Your task to perform on an android device: turn on airplane mode Image 0: 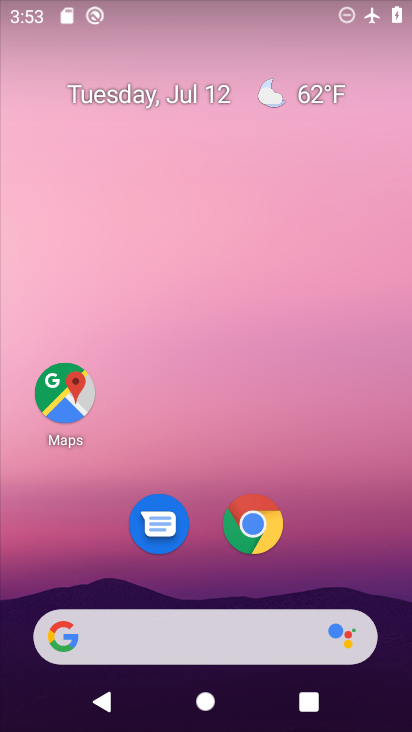
Step 0: drag from (326, 398) to (352, 19)
Your task to perform on an android device: turn on airplane mode Image 1: 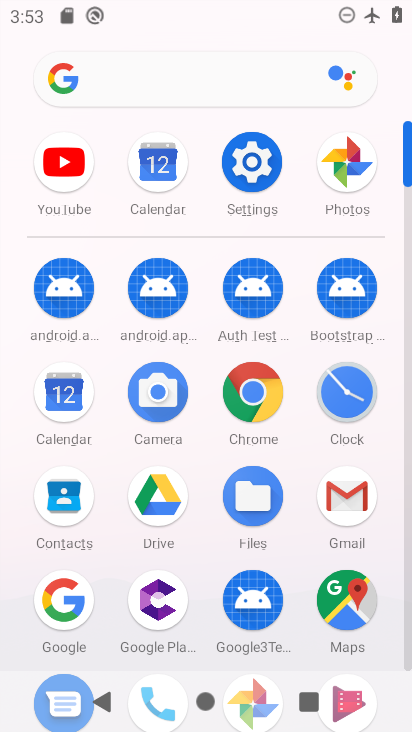
Step 1: click (268, 171)
Your task to perform on an android device: turn on airplane mode Image 2: 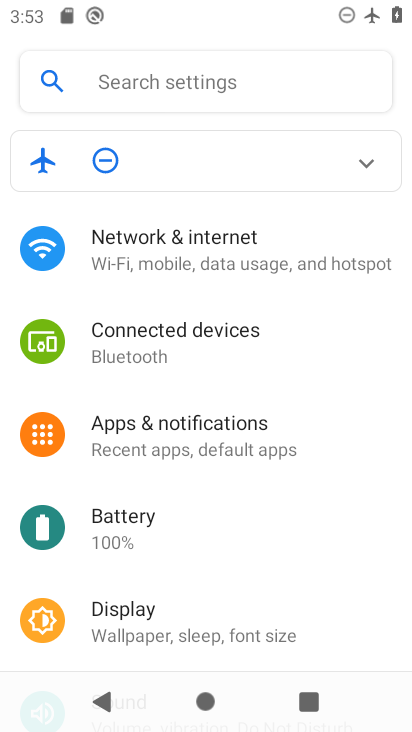
Step 2: click (234, 224)
Your task to perform on an android device: turn on airplane mode Image 3: 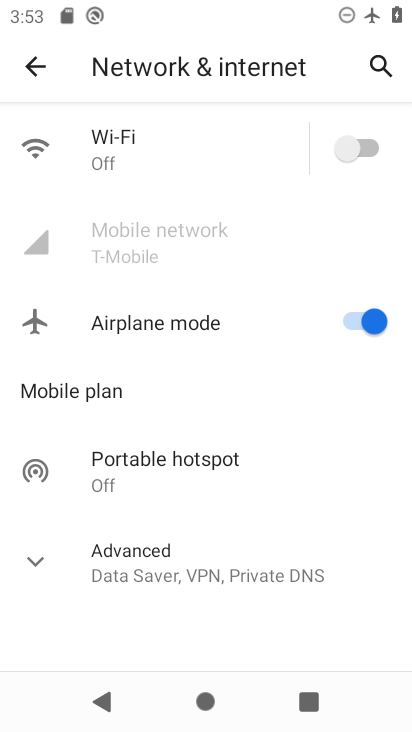
Step 3: task complete